Your task to perform on an android device: turn off data saver in the chrome app Image 0: 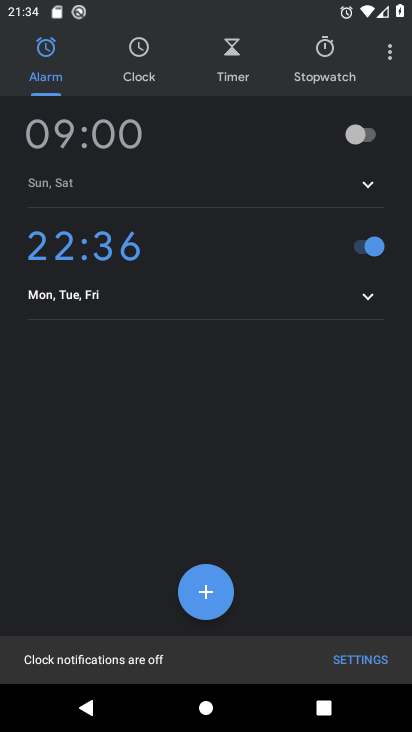
Step 0: press home button
Your task to perform on an android device: turn off data saver in the chrome app Image 1: 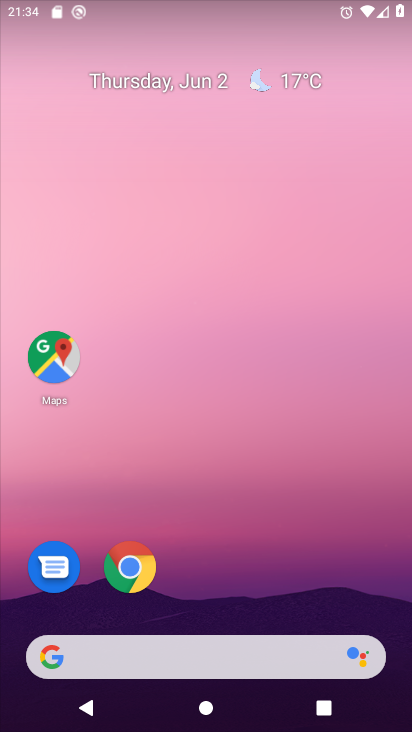
Step 1: click (134, 572)
Your task to perform on an android device: turn off data saver in the chrome app Image 2: 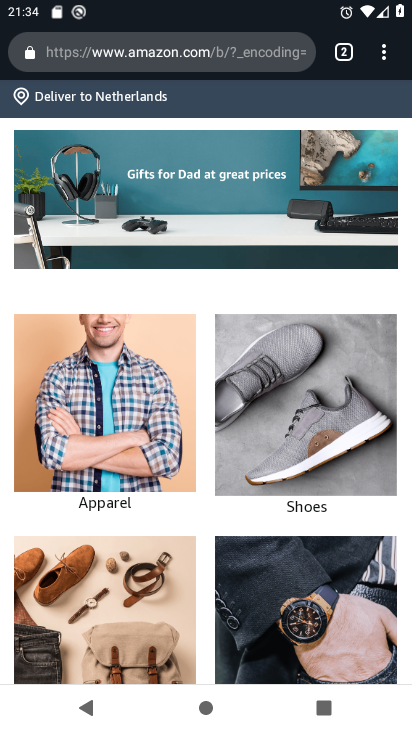
Step 2: click (386, 57)
Your task to perform on an android device: turn off data saver in the chrome app Image 3: 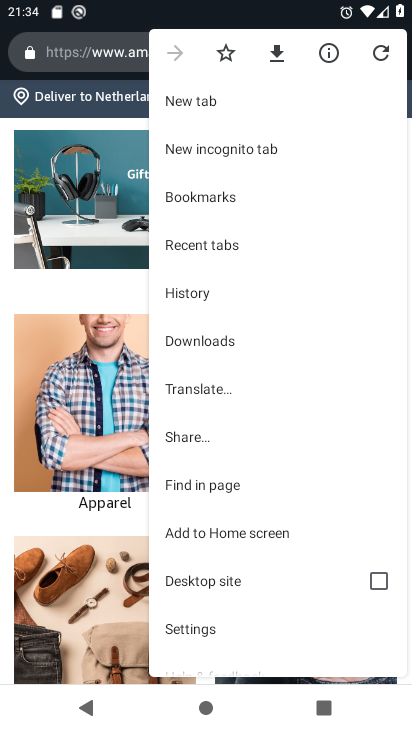
Step 3: click (202, 634)
Your task to perform on an android device: turn off data saver in the chrome app Image 4: 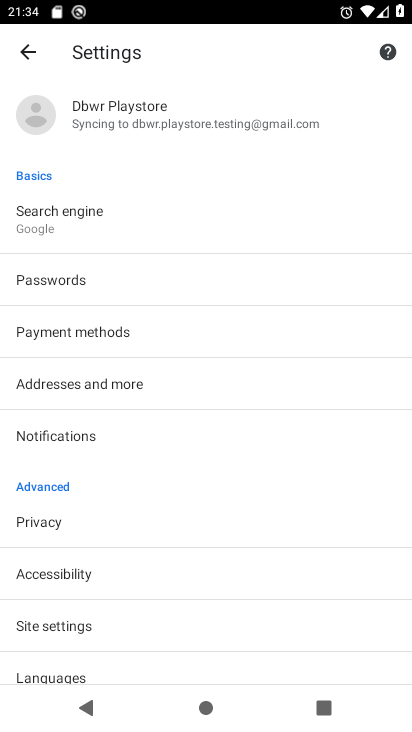
Step 4: drag from (77, 636) to (136, 285)
Your task to perform on an android device: turn off data saver in the chrome app Image 5: 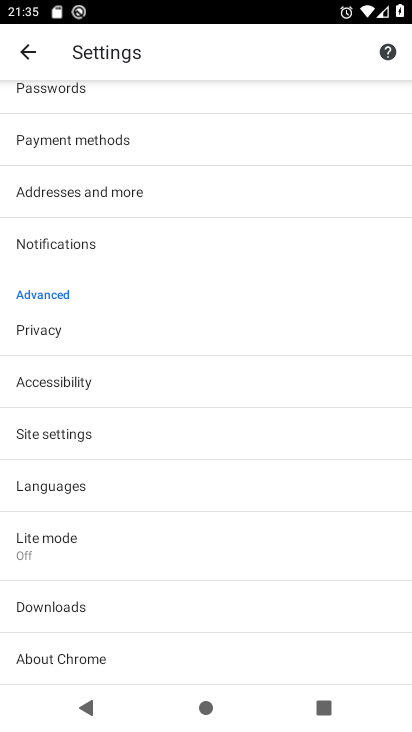
Step 5: click (62, 539)
Your task to perform on an android device: turn off data saver in the chrome app Image 6: 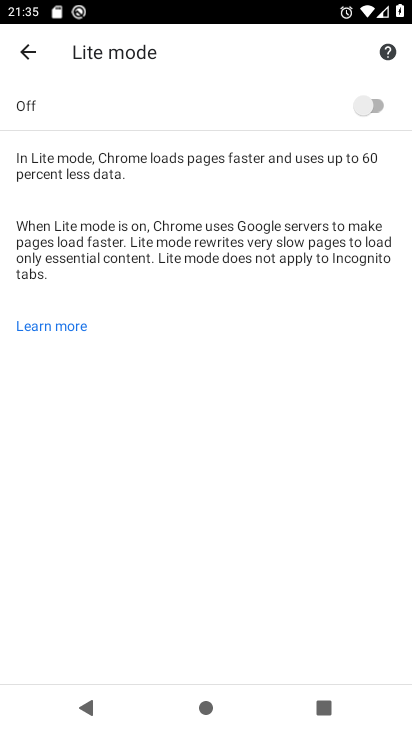
Step 6: task complete